Your task to perform on an android device: set the stopwatch Image 0: 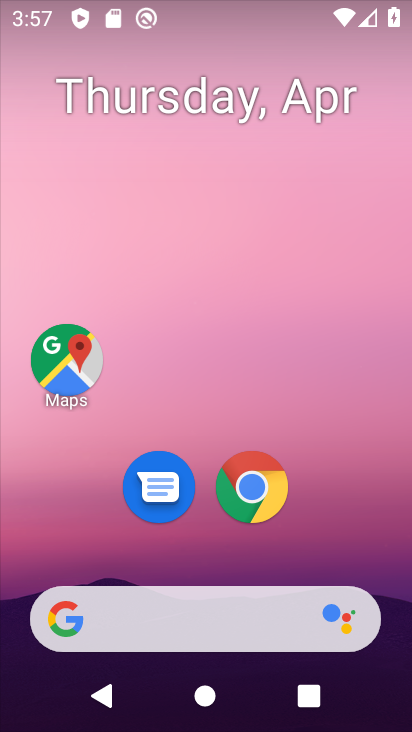
Step 0: drag from (223, 573) to (207, 87)
Your task to perform on an android device: set the stopwatch Image 1: 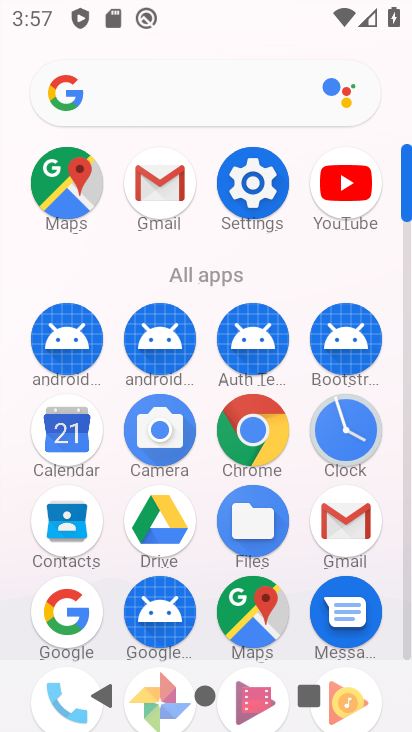
Step 1: click (341, 405)
Your task to perform on an android device: set the stopwatch Image 2: 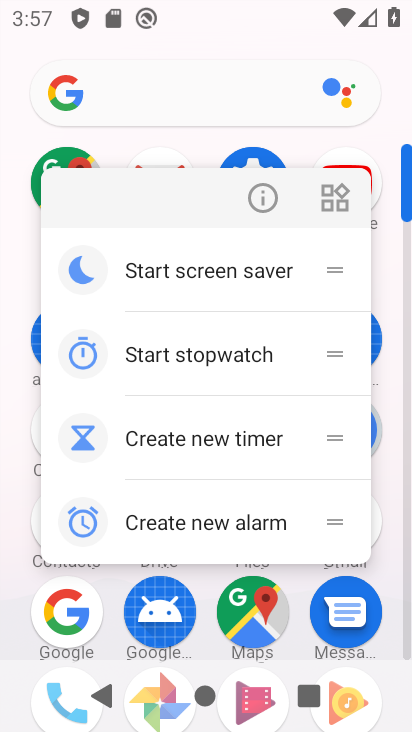
Step 2: click (390, 483)
Your task to perform on an android device: set the stopwatch Image 3: 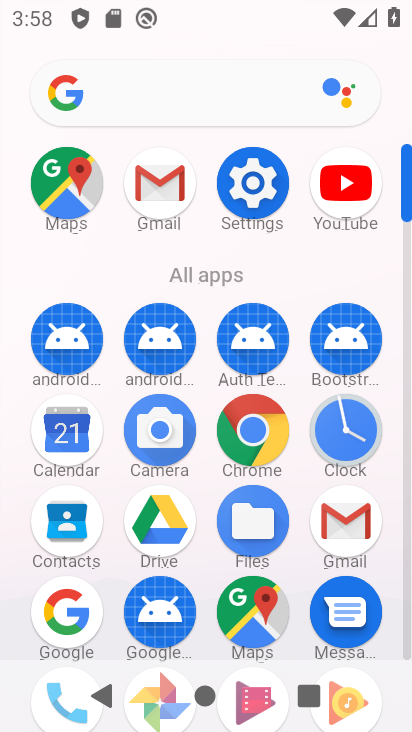
Step 3: click (352, 443)
Your task to perform on an android device: set the stopwatch Image 4: 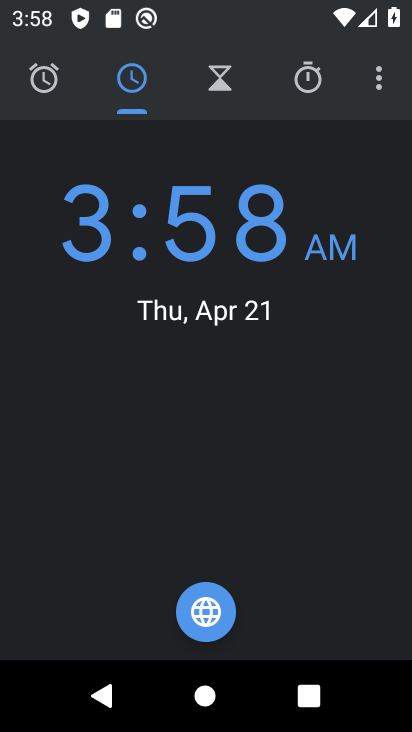
Step 4: click (298, 81)
Your task to perform on an android device: set the stopwatch Image 5: 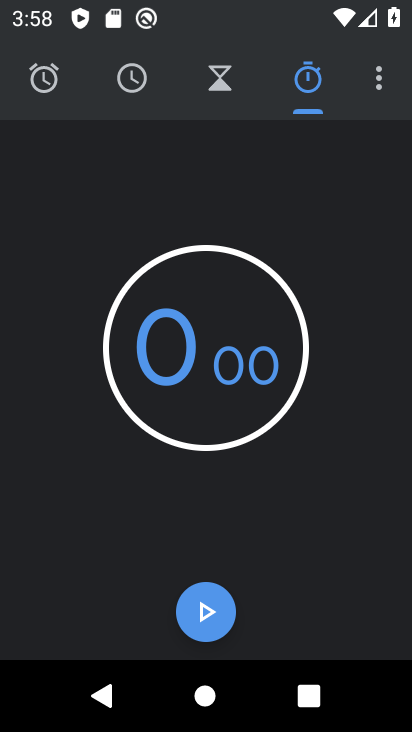
Step 5: click (210, 596)
Your task to perform on an android device: set the stopwatch Image 6: 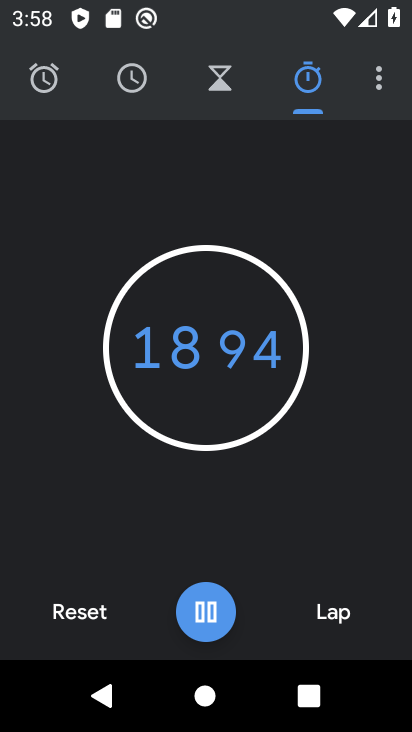
Step 6: task complete